Your task to perform on an android device: set the stopwatch Image 0: 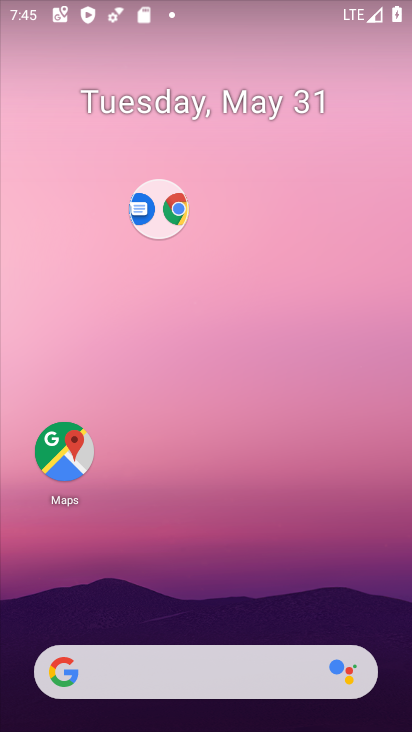
Step 0: drag from (186, 609) to (164, 323)
Your task to perform on an android device: set the stopwatch Image 1: 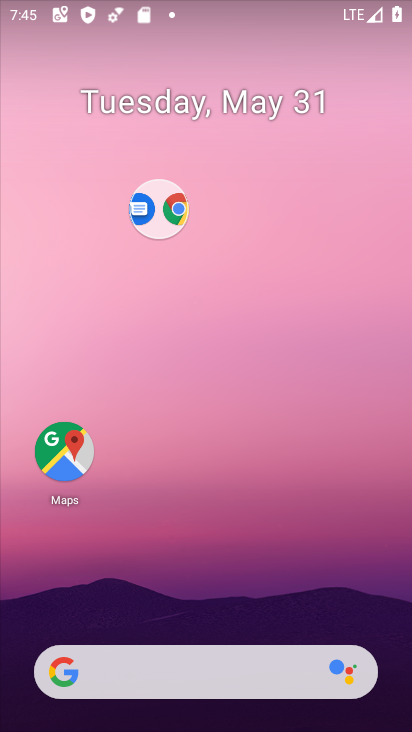
Step 1: drag from (194, 599) to (171, 113)
Your task to perform on an android device: set the stopwatch Image 2: 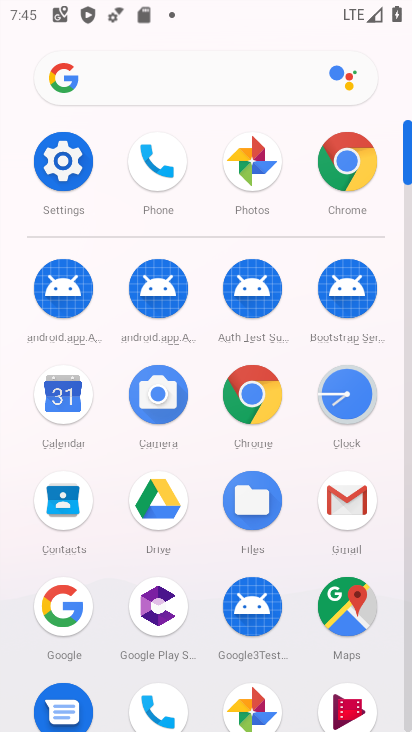
Step 2: click (346, 395)
Your task to perform on an android device: set the stopwatch Image 3: 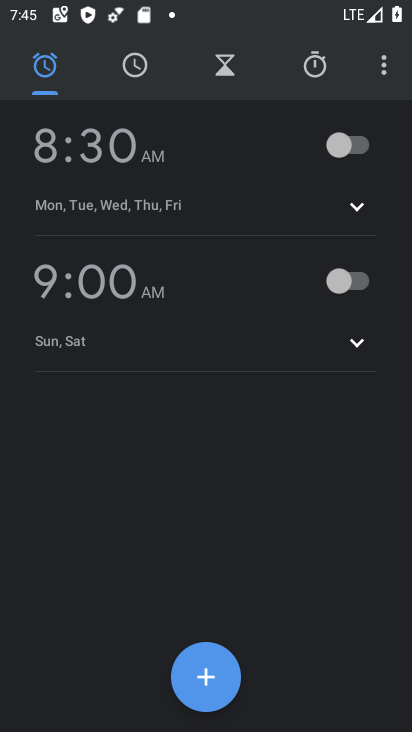
Step 3: click (305, 72)
Your task to perform on an android device: set the stopwatch Image 4: 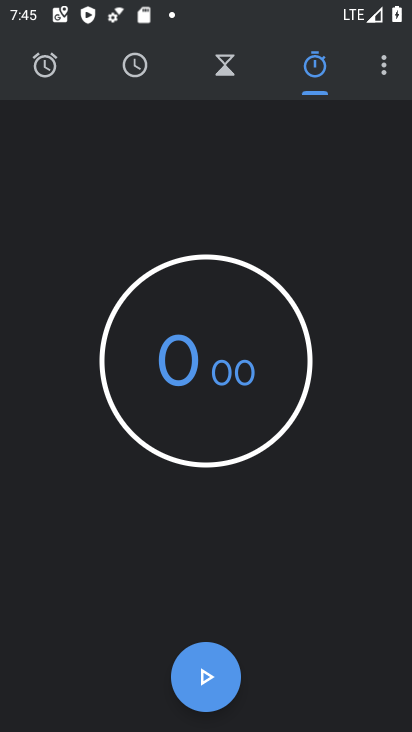
Step 4: click (212, 687)
Your task to perform on an android device: set the stopwatch Image 5: 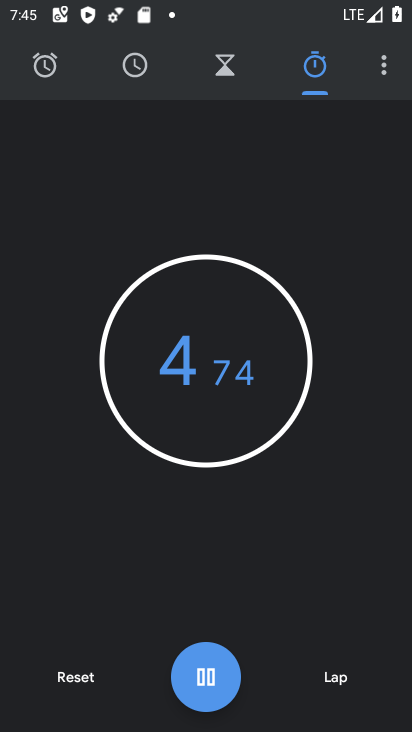
Step 5: click (211, 675)
Your task to perform on an android device: set the stopwatch Image 6: 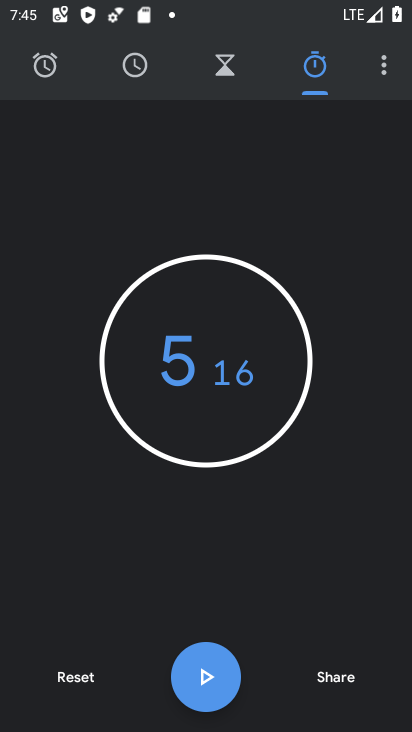
Step 6: task complete